Your task to perform on an android device: turn notification dots on Image 0: 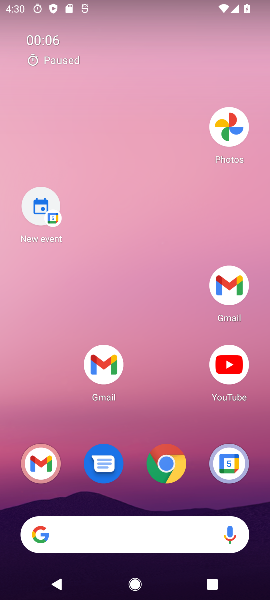
Step 0: drag from (167, 559) to (77, 148)
Your task to perform on an android device: turn notification dots on Image 1: 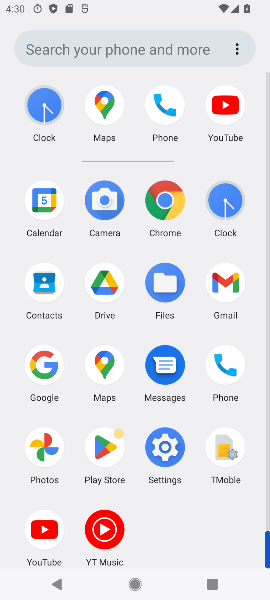
Step 1: drag from (174, 454) to (124, 217)
Your task to perform on an android device: turn notification dots on Image 2: 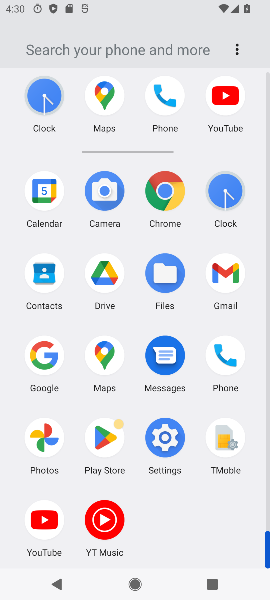
Step 2: click (157, 434)
Your task to perform on an android device: turn notification dots on Image 3: 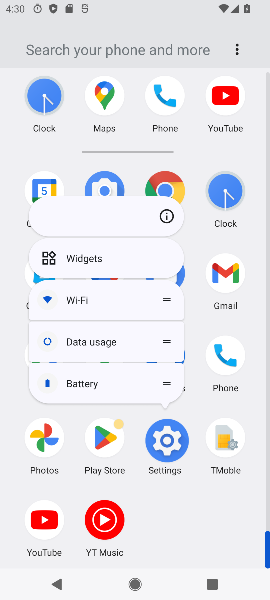
Step 3: click (159, 437)
Your task to perform on an android device: turn notification dots on Image 4: 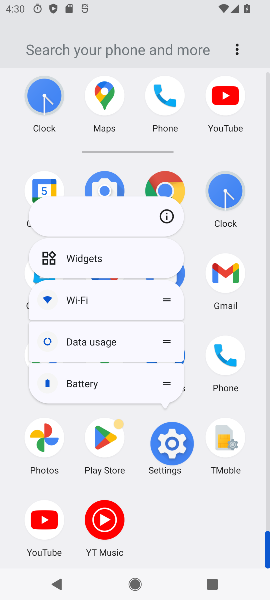
Step 4: click (166, 443)
Your task to perform on an android device: turn notification dots on Image 5: 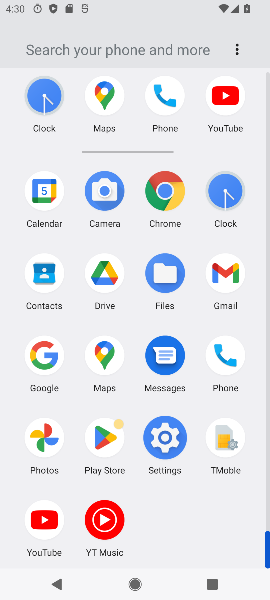
Step 5: click (166, 443)
Your task to perform on an android device: turn notification dots on Image 6: 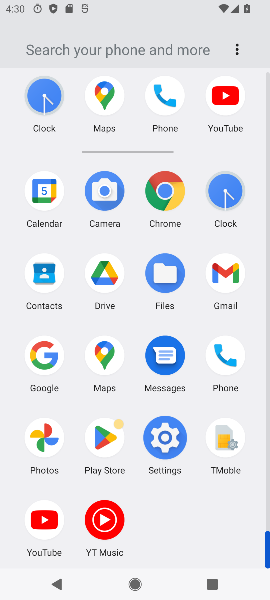
Step 6: click (166, 443)
Your task to perform on an android device: turn notification dots on Image 7: 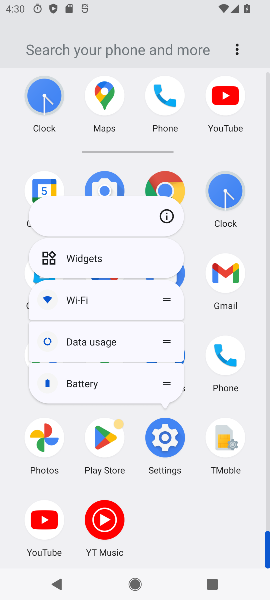
Step 7: click (166, 435)
Your task to perform on an android device: turn notification dots on Image 8: 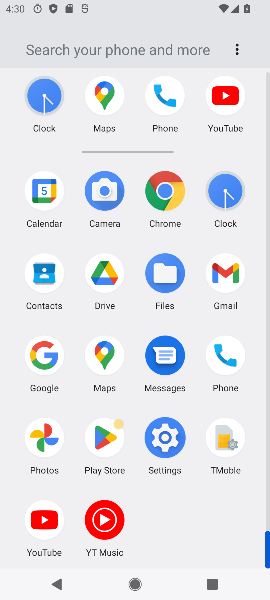
Step 8: click (166, 435)
Your task to perform on an android device: turn notification dots on Image 9: 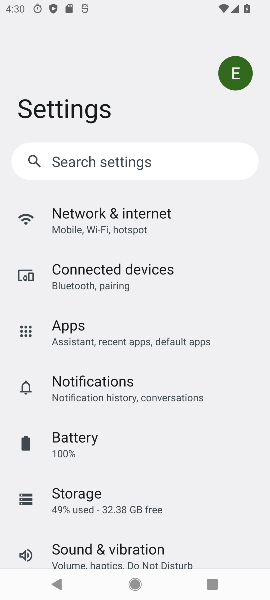
Step 9: press back button
Your task to perform on an android device: turn notification dots on Image 10: 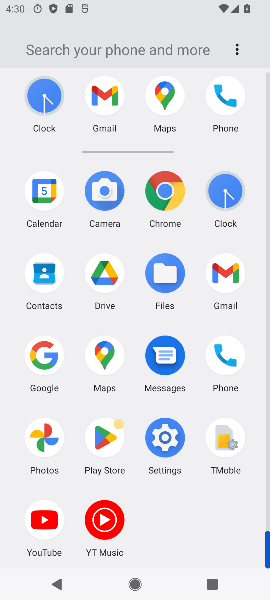
Step 10: click (166, 428)
Your task to perform on an android device: turn notification dots on Image 11: 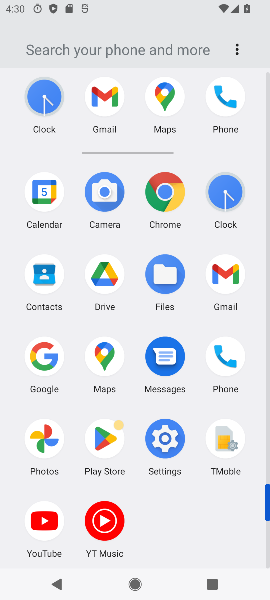
Step 11: click (162, 442)
Your task to perform on an android device: turn notification dots on Image 12: 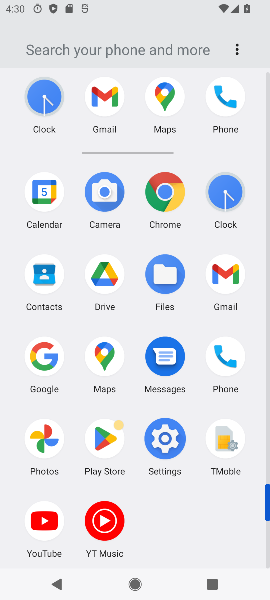
Step 12: click (164, 442)
Your task to perform on an android device: turn notification dots on Image 13: 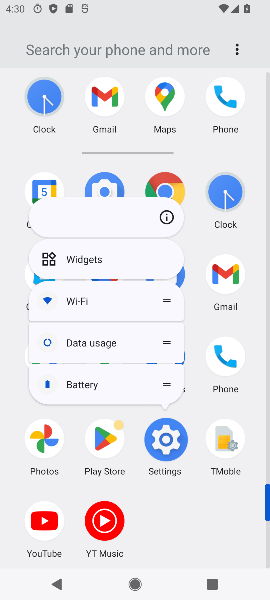
Step 13: click (166, 435)
Your task to perform on an android device: turn notification dots on Image 14: 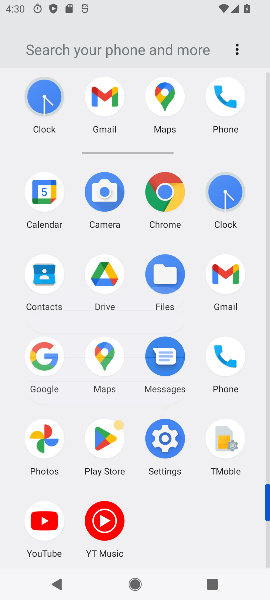
Step 14: click (166, 435)
Your task to perform on an android device: turn notification dots on Image 15: 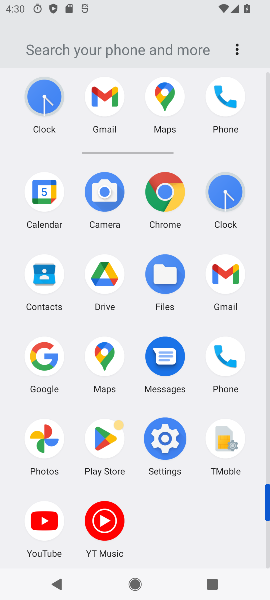
Step 15: click (166, 435)
Your task to perform on an android device: turn notification dots on Image 16: 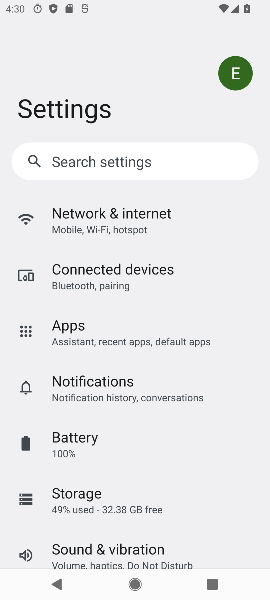
Step 16: click (166, 434)
Your task to perform on an android device: turn notification dots on Image 17: 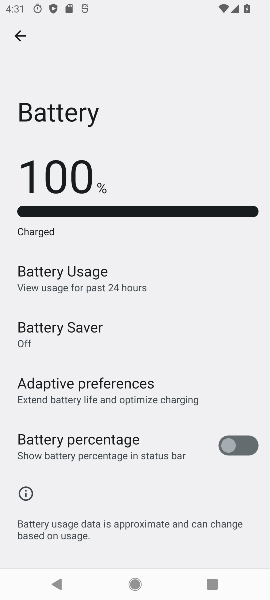
Step 17: click (18, 32)
Your task to perform on an android device: turn notification dots on Image 18: 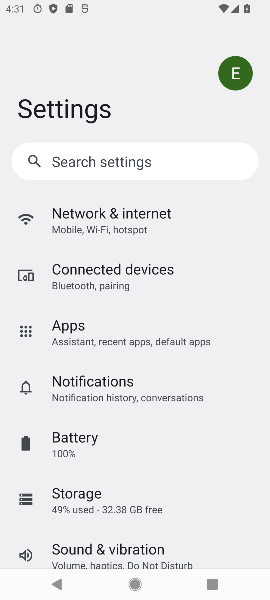
Step 18: click (88, 383)
Your task to perform on an android device: turn notification dots on Image 19: 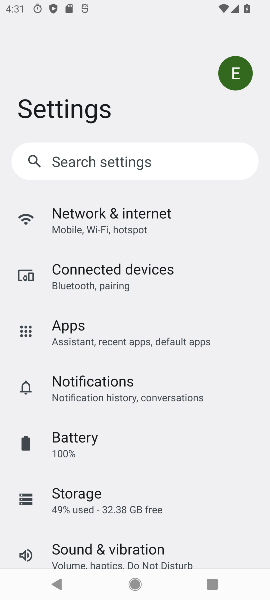
Step 19: click (88, 383)
Your task to perform on an android device: turn notification dots on Image 20: 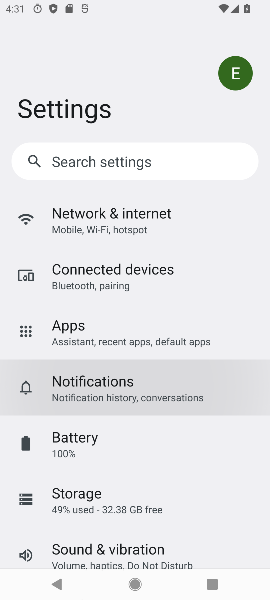
Step 20: click (88, 383)
Your task to perform on an android device: turn notification dots on Image 21: 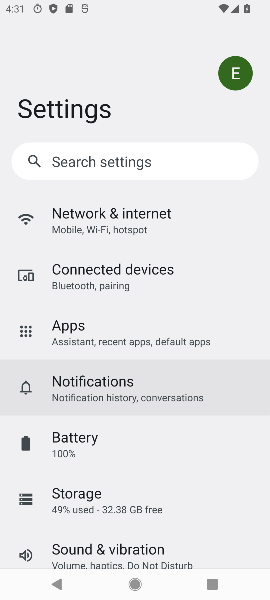
Step 21: click (88, 383)
Your task to perform on an android device: turn notification dots on Image 22: 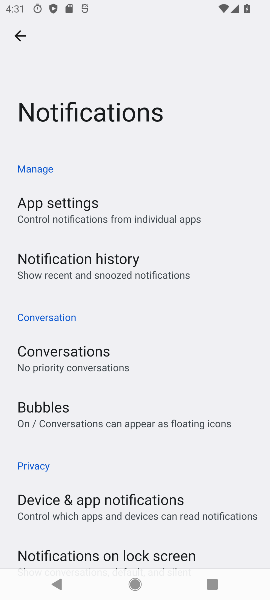
Step 22: click (12, 33)
Your task to perform on an android device: turn notification dots on Image 23: 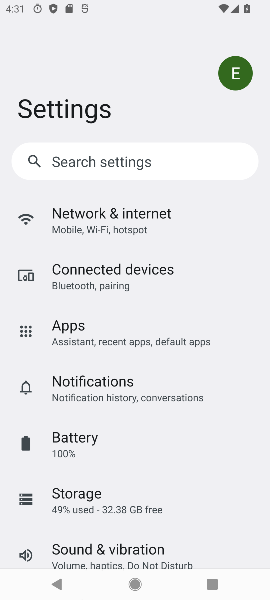
Step 23: click (86, 384)
Your task to perform on an android device: turn notification dots on Image 24: 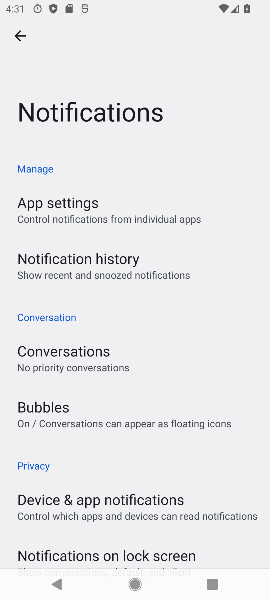
Step 24: task complete